Your task to perform on an android device: toggle notifications settings in the gmail app Image 0: 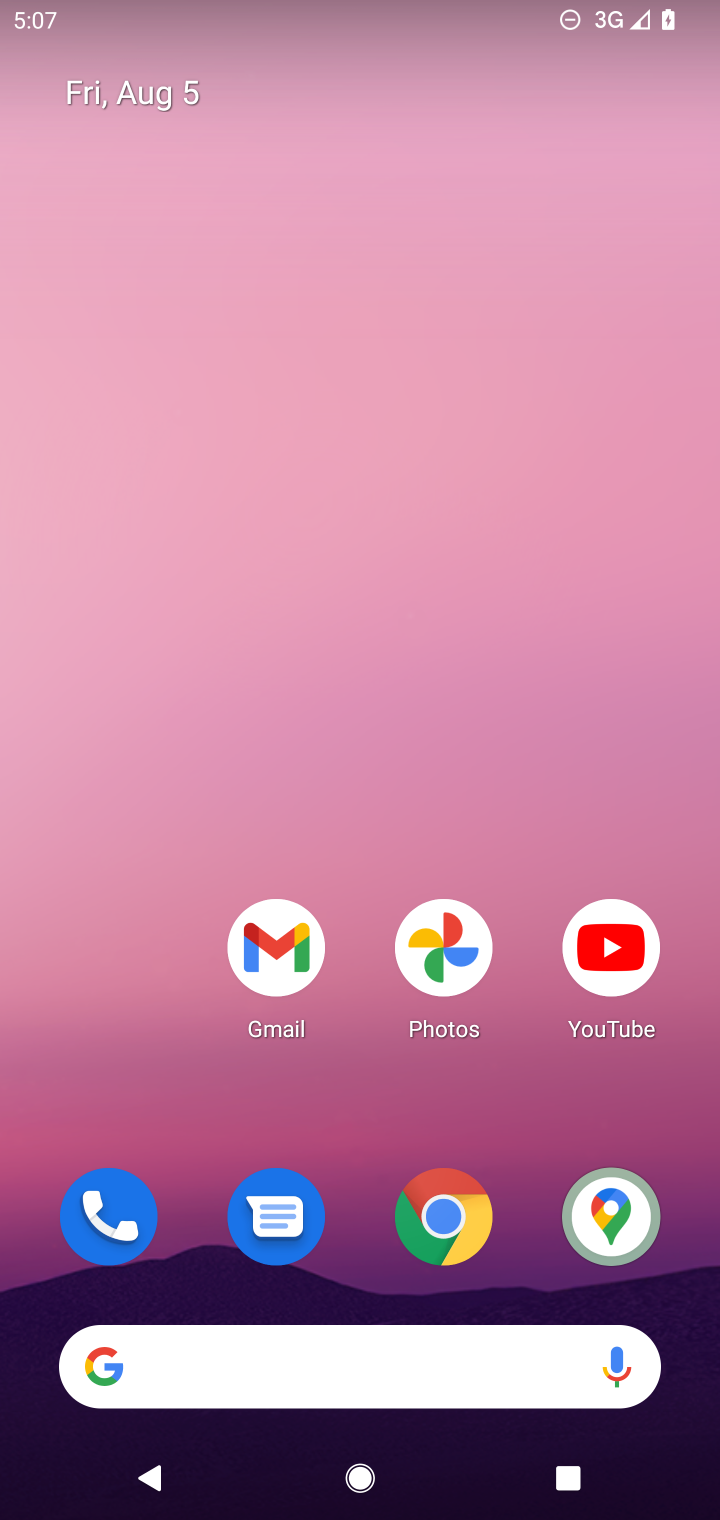
Step 0: click (267, 955)
Your task to perform on an android device: toggle notifications settings in the gmail app Image 1: 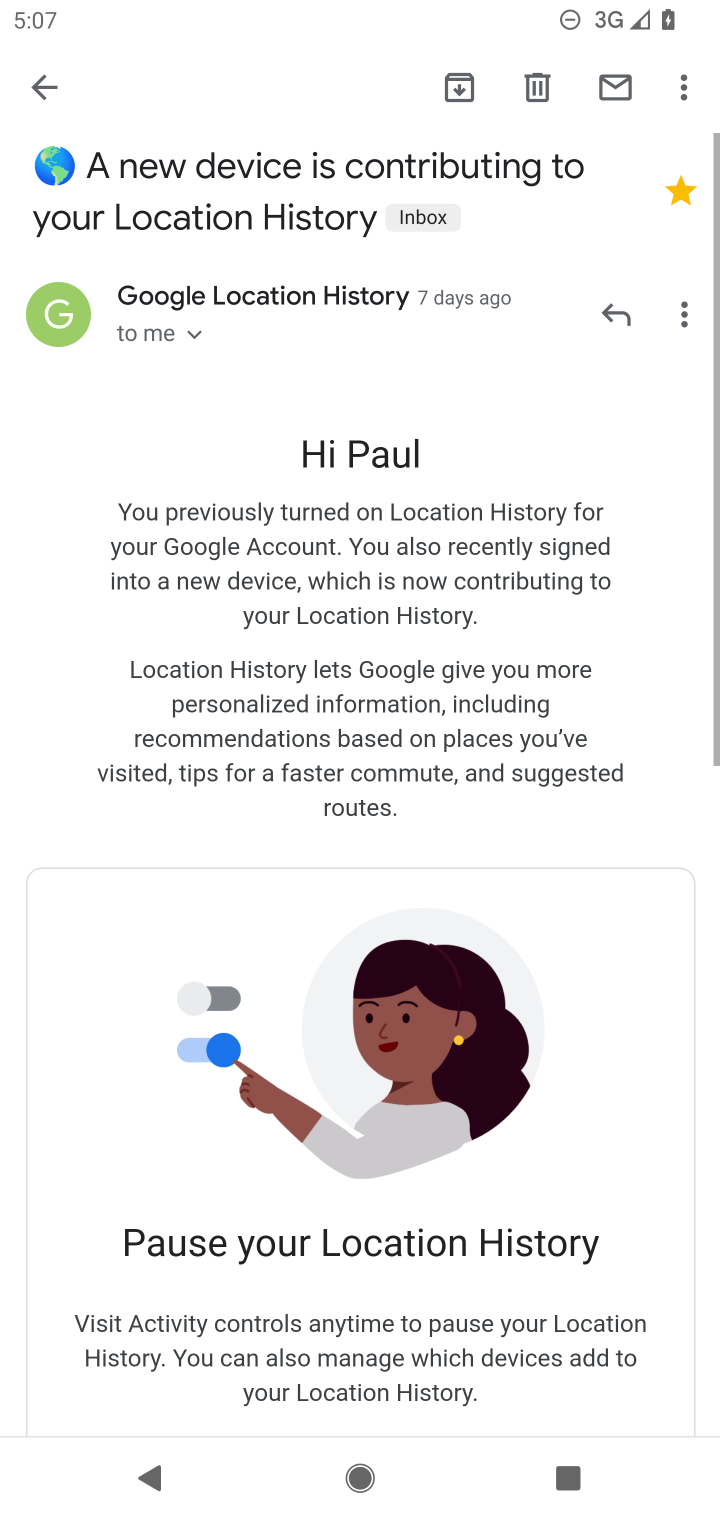
Step 1: click (267, 955)
Your task to perform on an android device: toggle notifications settings in the gmail app Image 2: 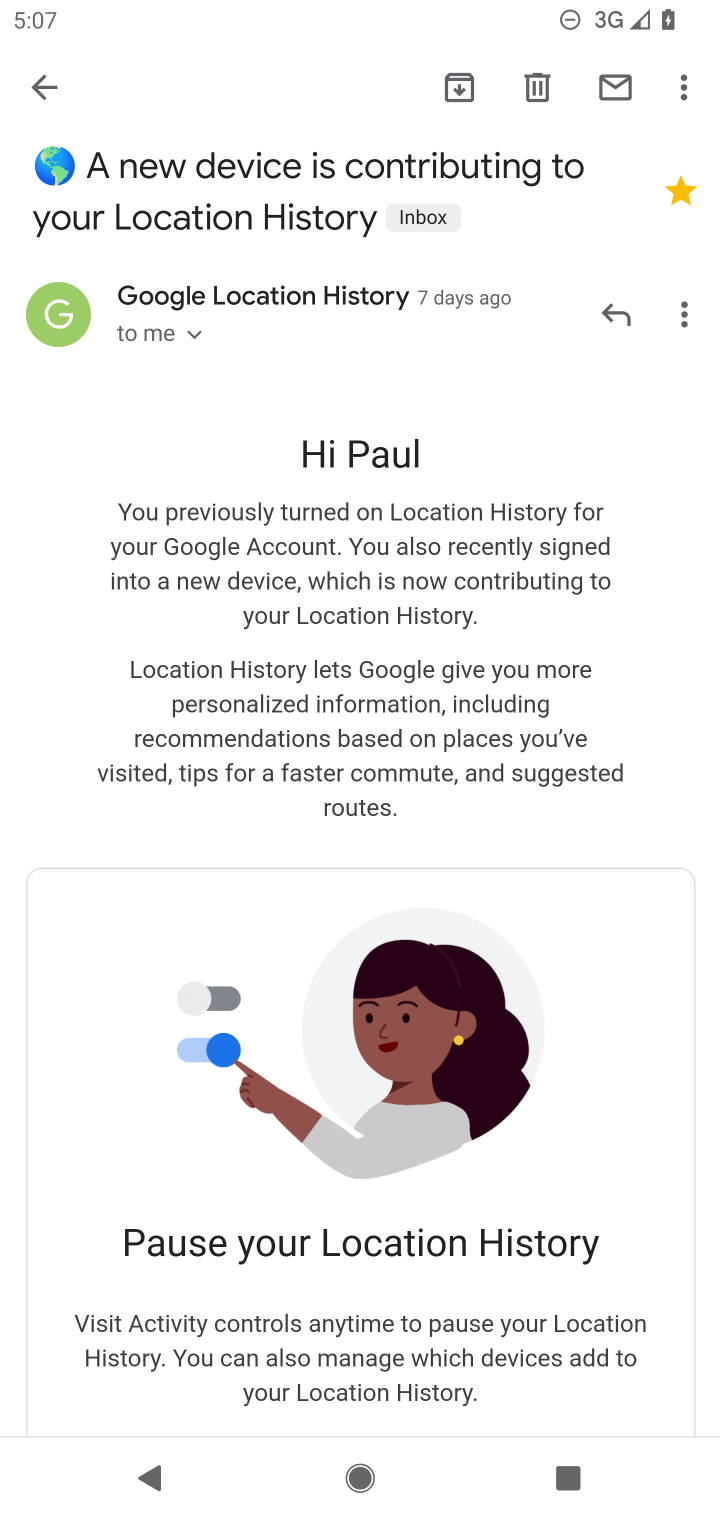
Step 2: click (46, 102)
Your task to perform on an android device: toggle notifications settings in the gmail app Image 3: 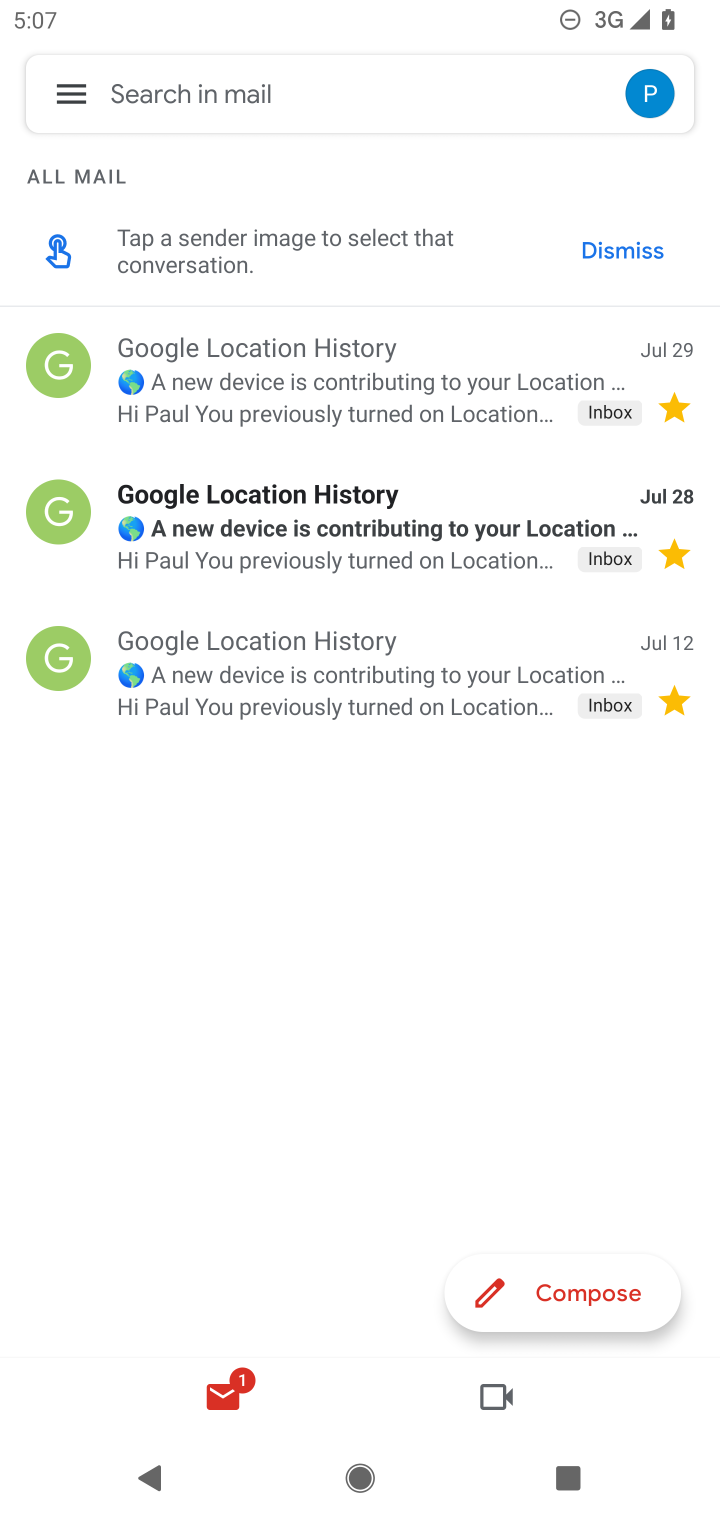
Step 3: click (75, 102)
Your task to perform on an android device: toggle notifications settings in the gmail app Image 4: 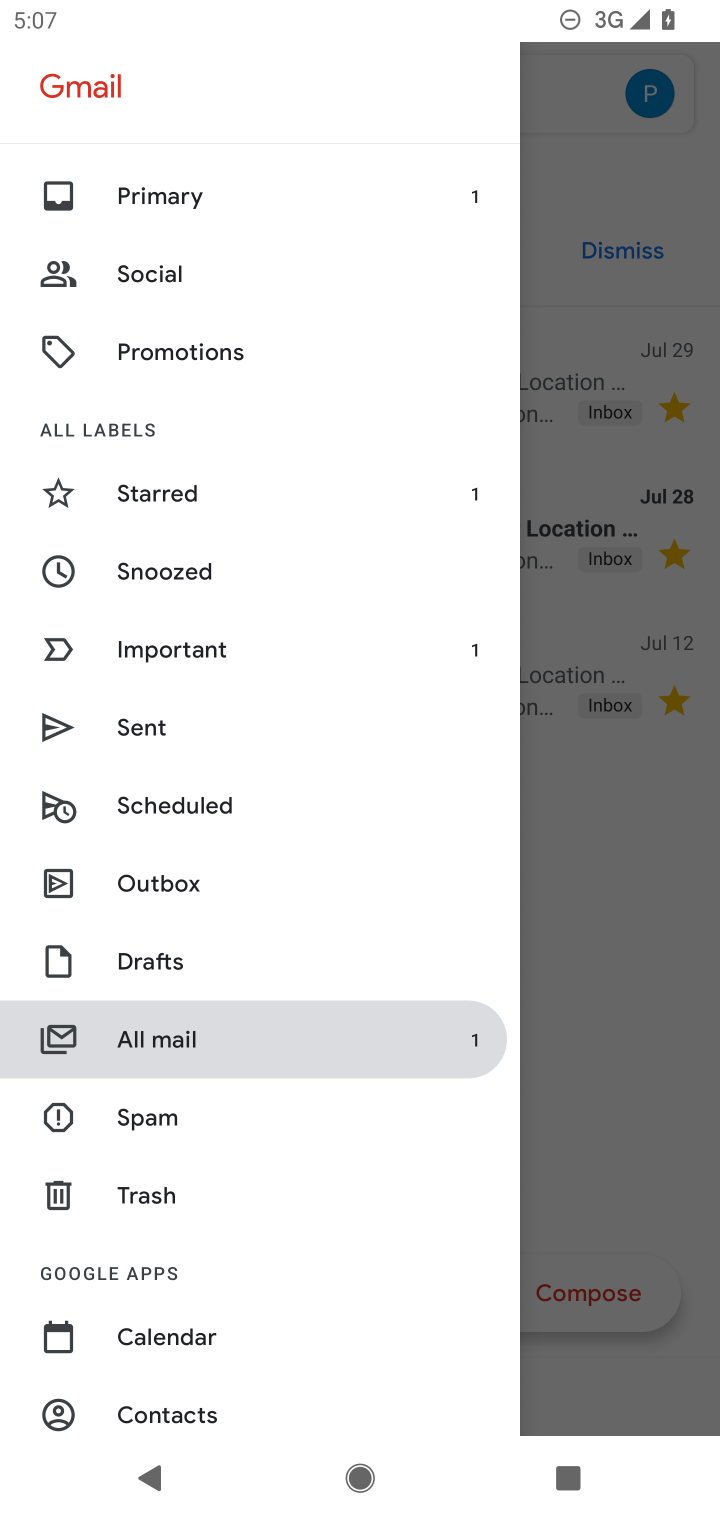
Step 4: drag from (243, 1204) to (243, 775)
Your task to perform on an android device: toggle notifications settings in the gmail app Image 5: 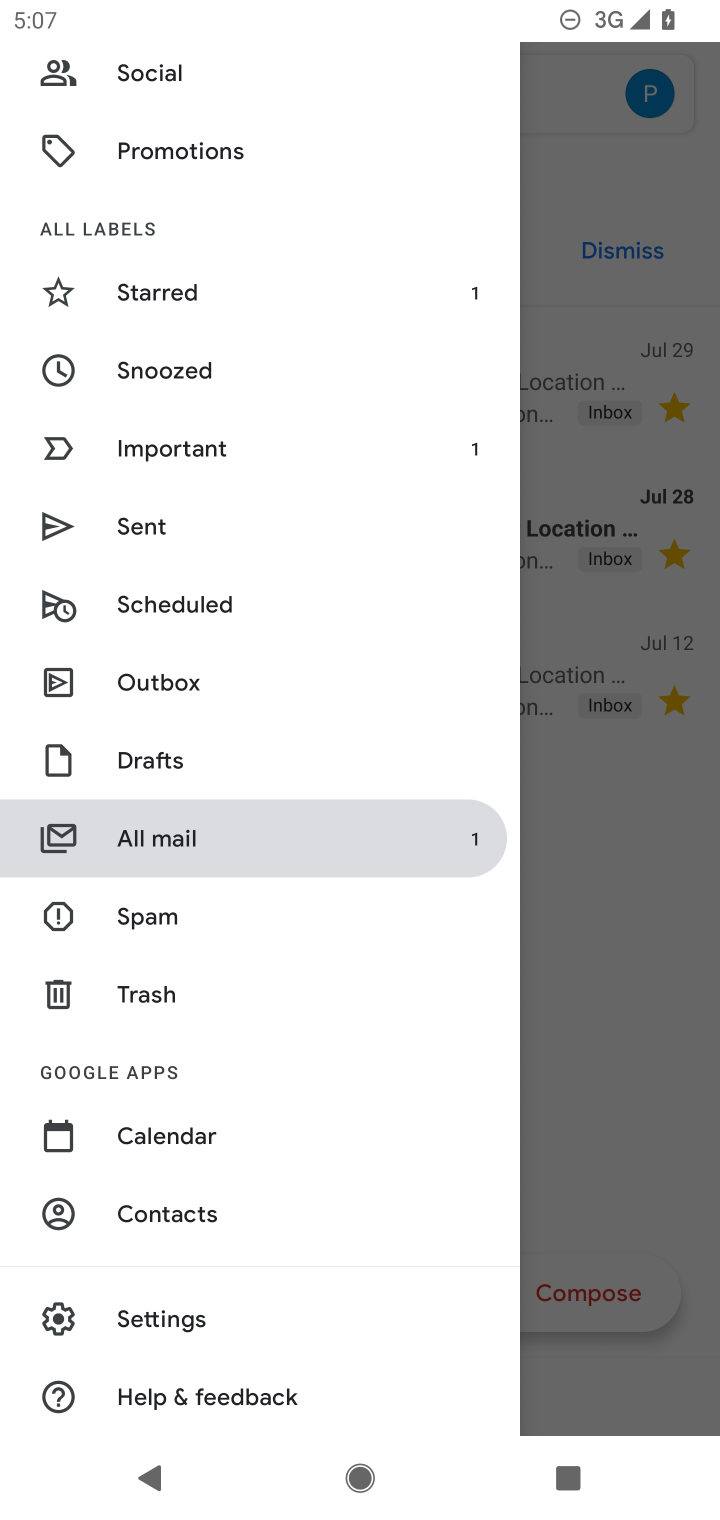
Step 5: click (138, 1299)
Your task to perform on an android device: toggle notifications settings in the gmail app Image 6: 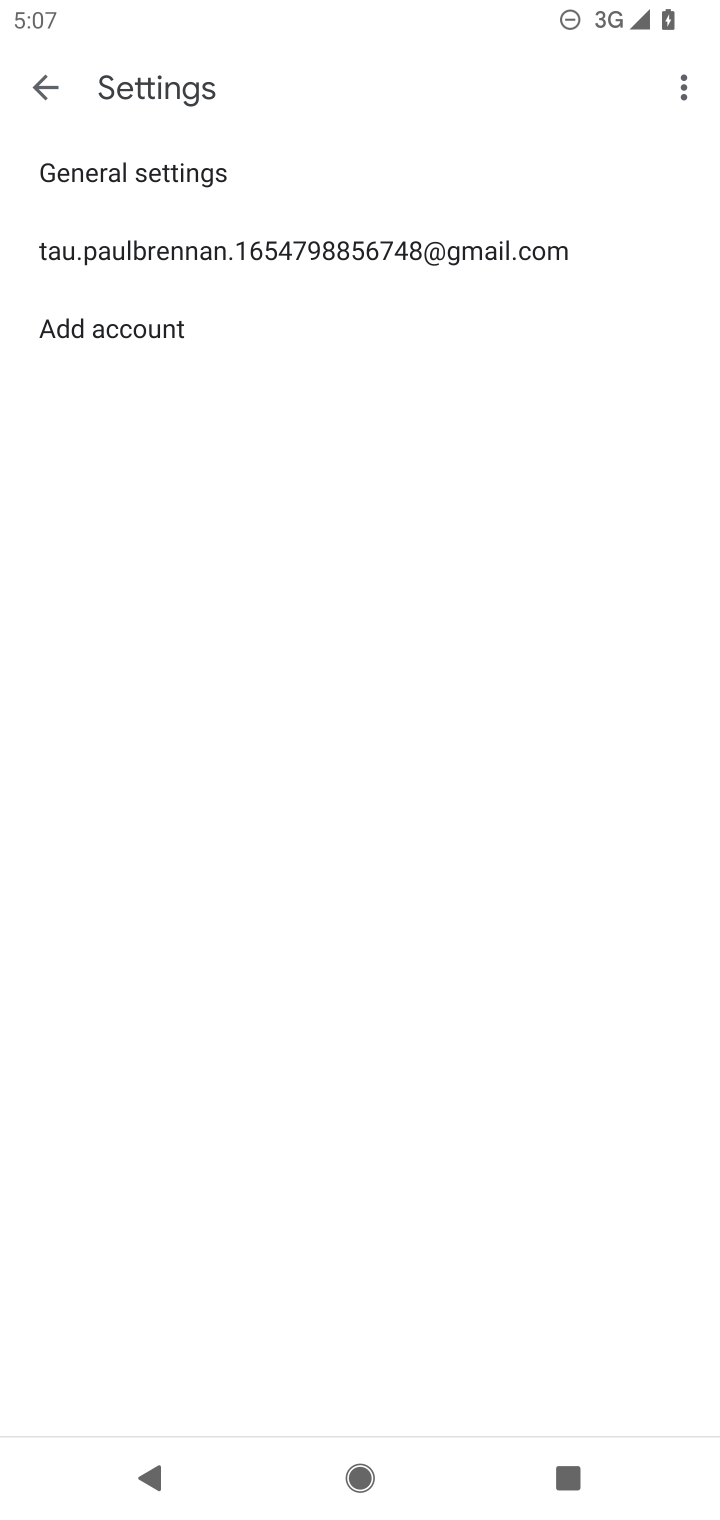
Step 6: click (503, 236)
Your task to perform on an android device: toggle notifications settings in the gmail app Image 7: 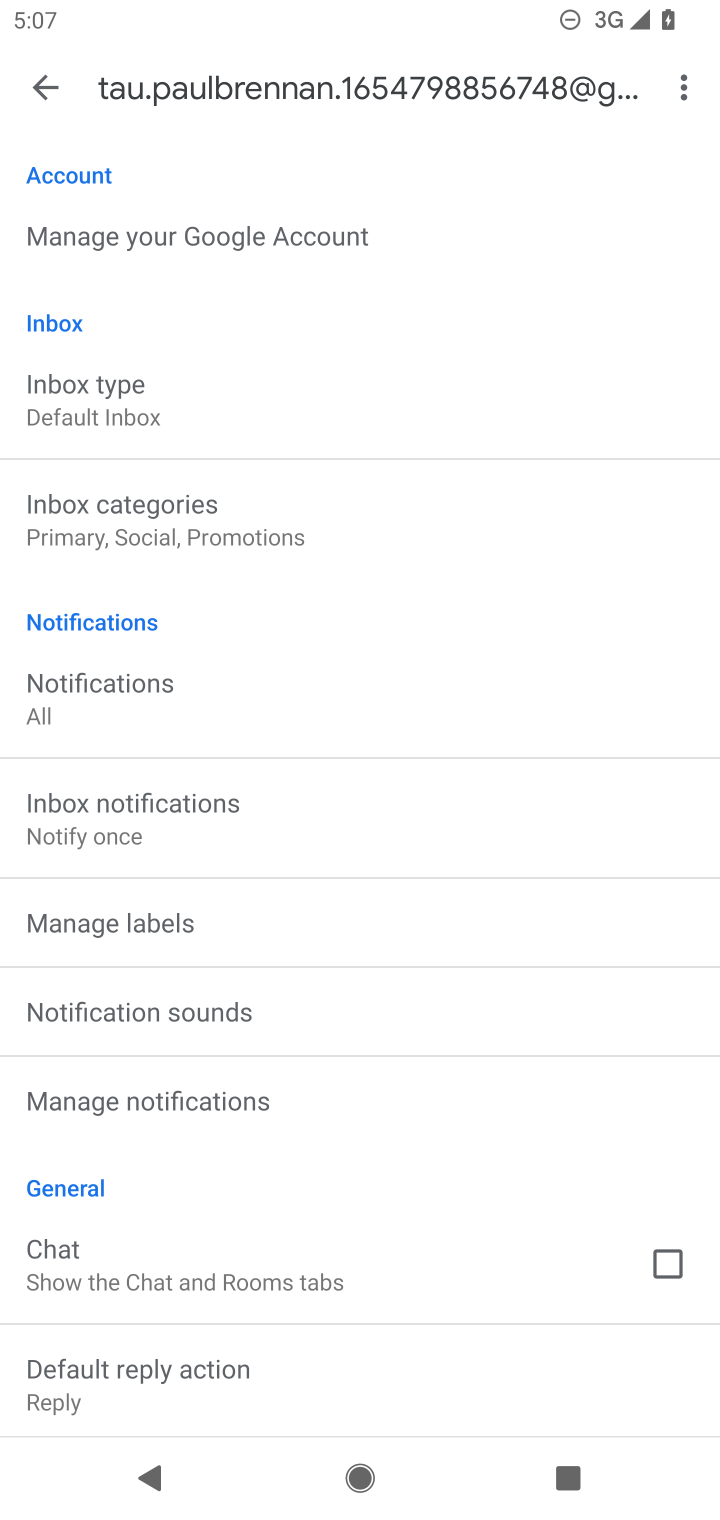
Step 7: click (176, 1103)
Your task to perform on an android device: toggle notifications settings in the gmail app Image 8: 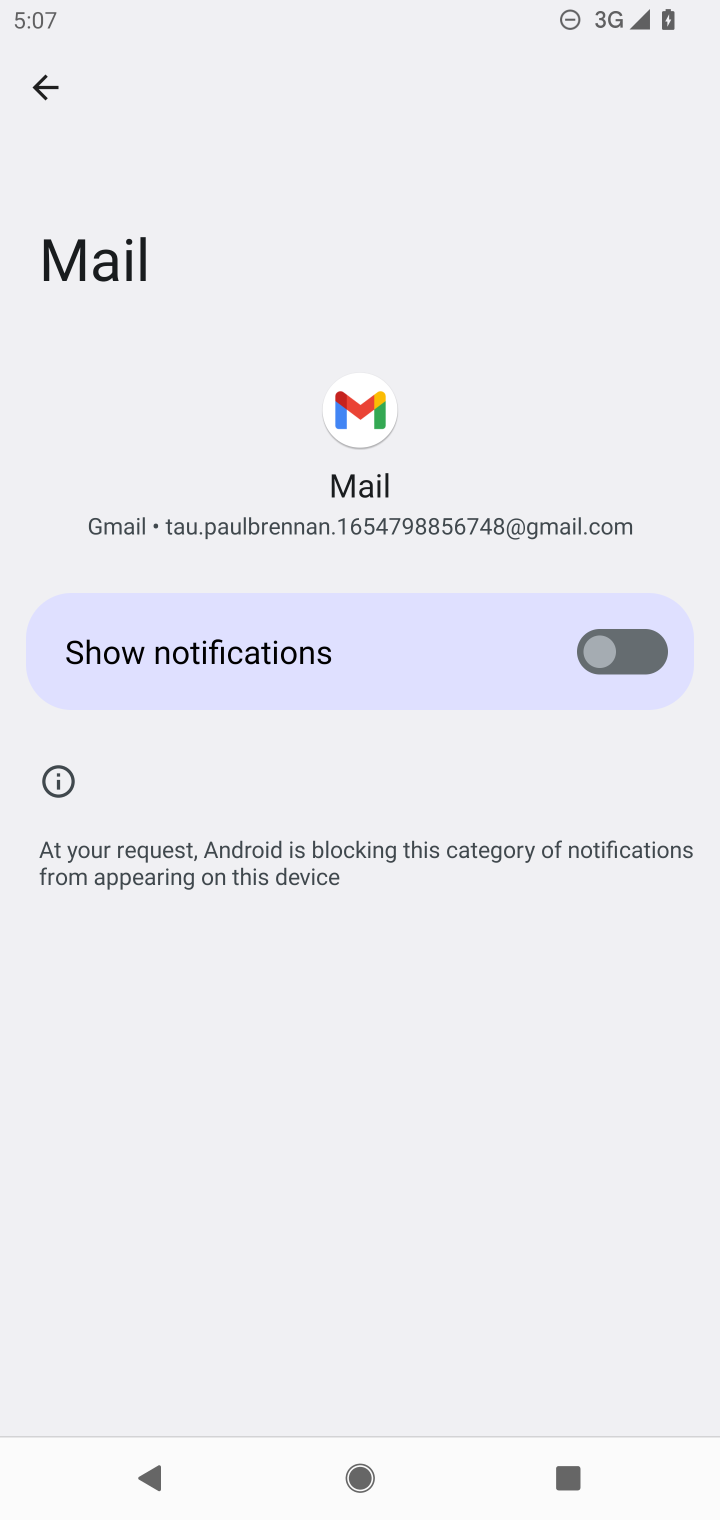
Step 8: click (611, 648)
Your task to perform on an android device: toggle notifications settings in the gmail app Image 9: 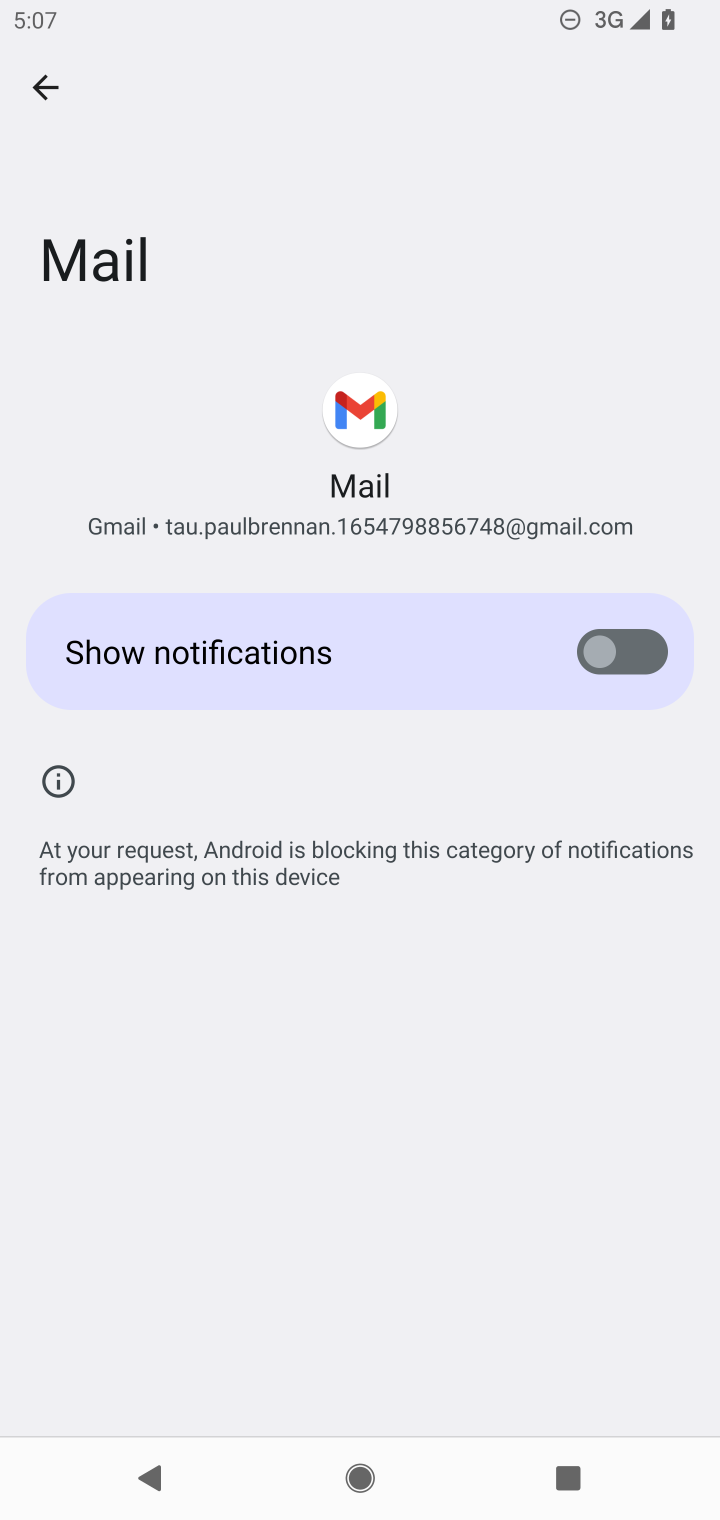
Step 9: click (643, 662)
Your task to perform on an android device: toggle notifications settings in the gmail app Image 10: 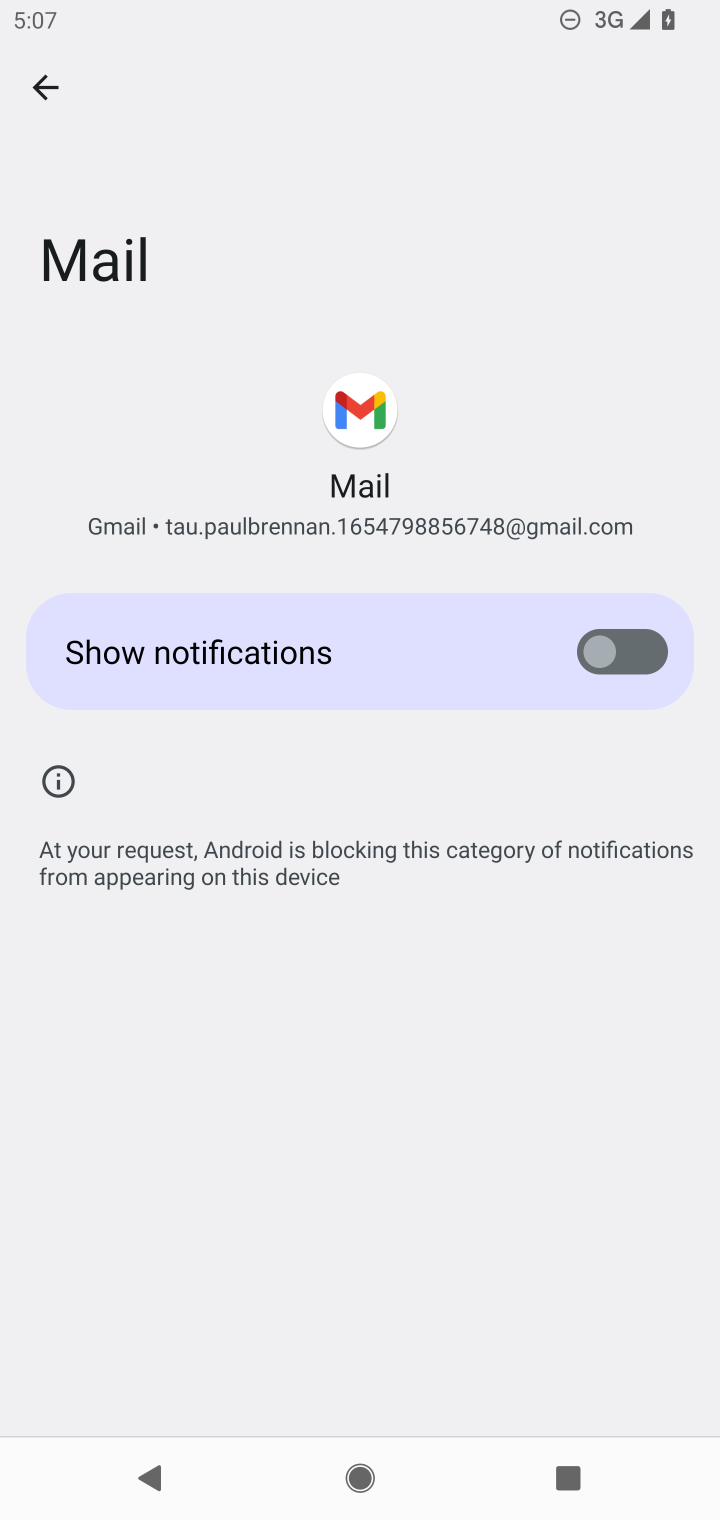
Step 10: click (643, 662)
Your task to perform on an android device: toggle notifications settings in the gmail app Image 11: 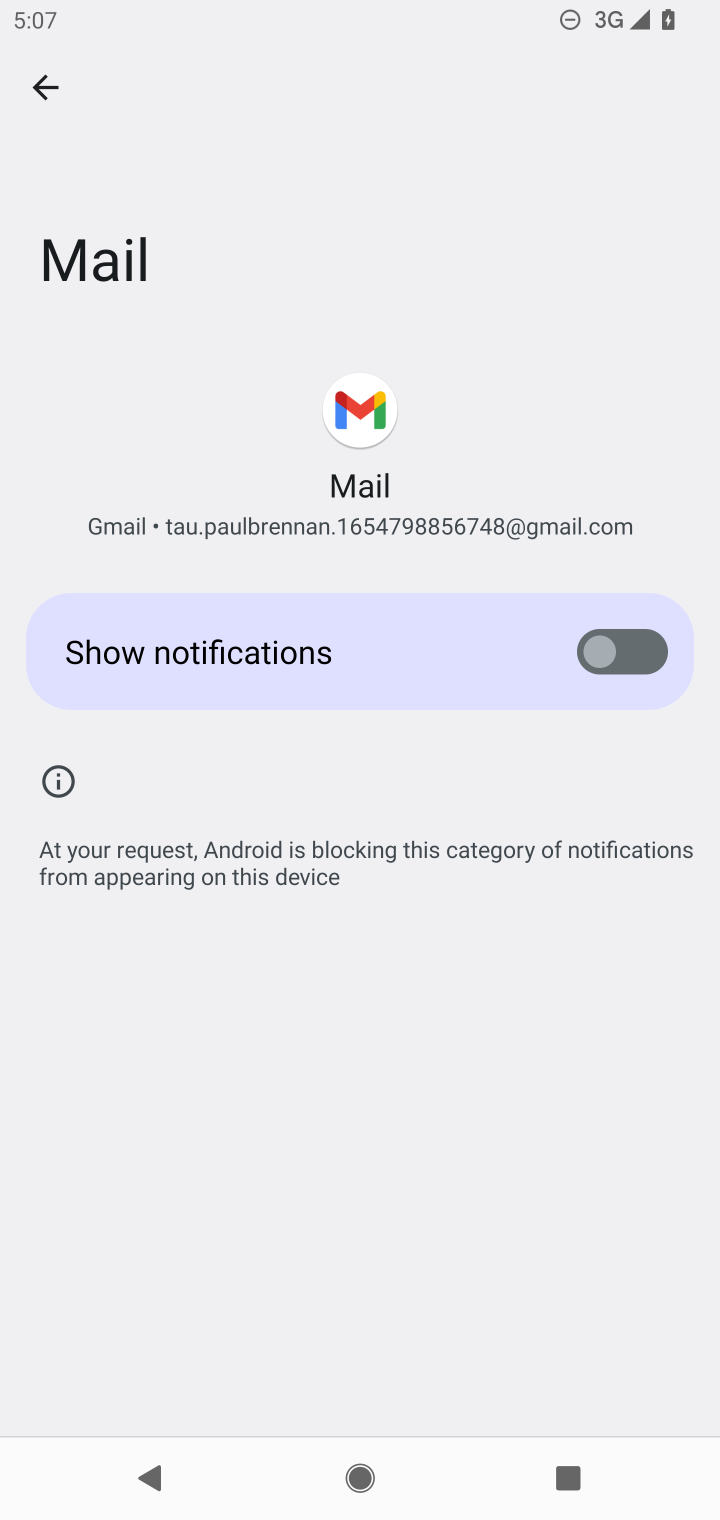
Step 11: task complete